Your task to perform on an android device: uninstall "Messages" Image 0: 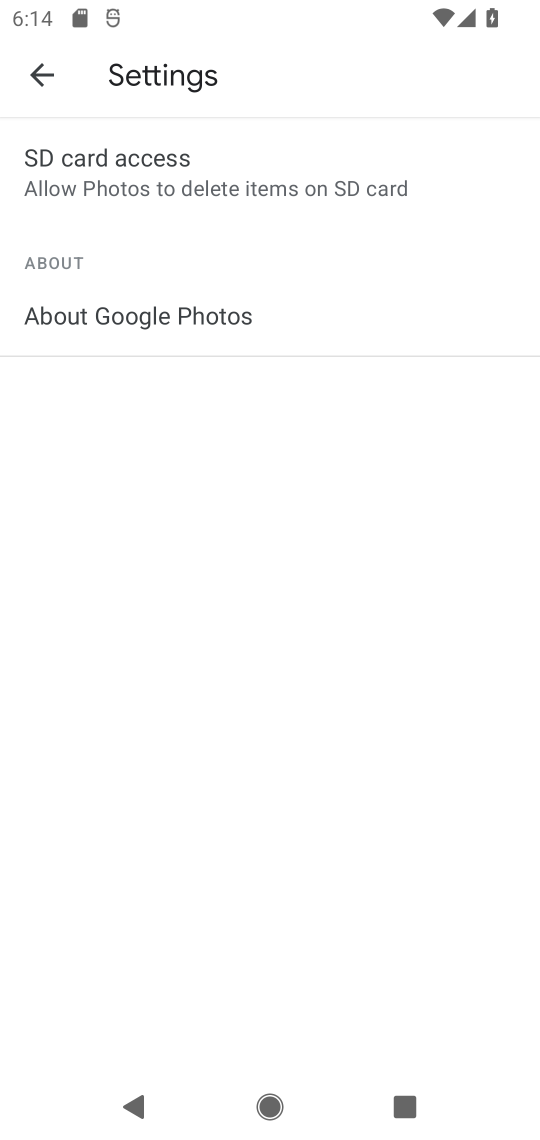
Step 0: press home button
Your task to perform on an android device: uninstall "Messages" Image 1: 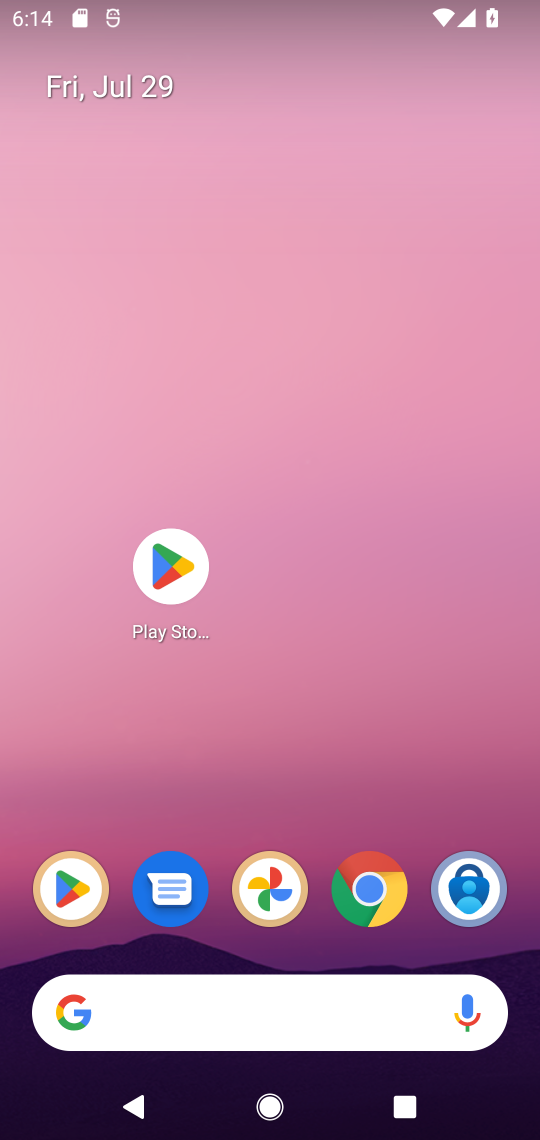
Step 1: click (176, 563)
Your task to perform on an android device: uninstall "Messages" Image 2: 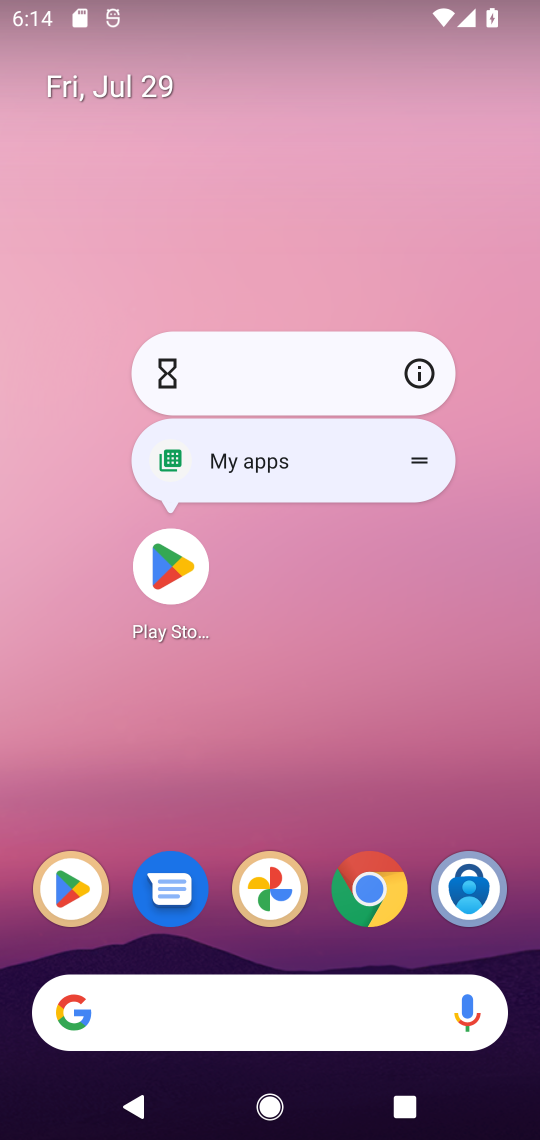
Step 2: click (171, 560)
Your task to perform on an android device: uninstall "Messages" Image 3: 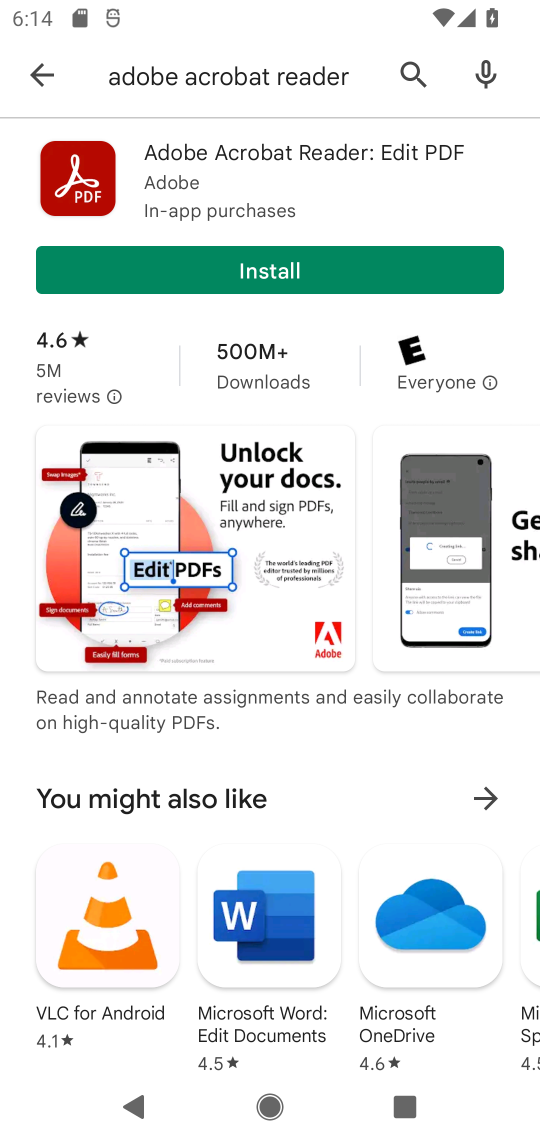
Step 3: click (410, 77)
Your task to perform on an android device: uninstall "Messages" Image 4: 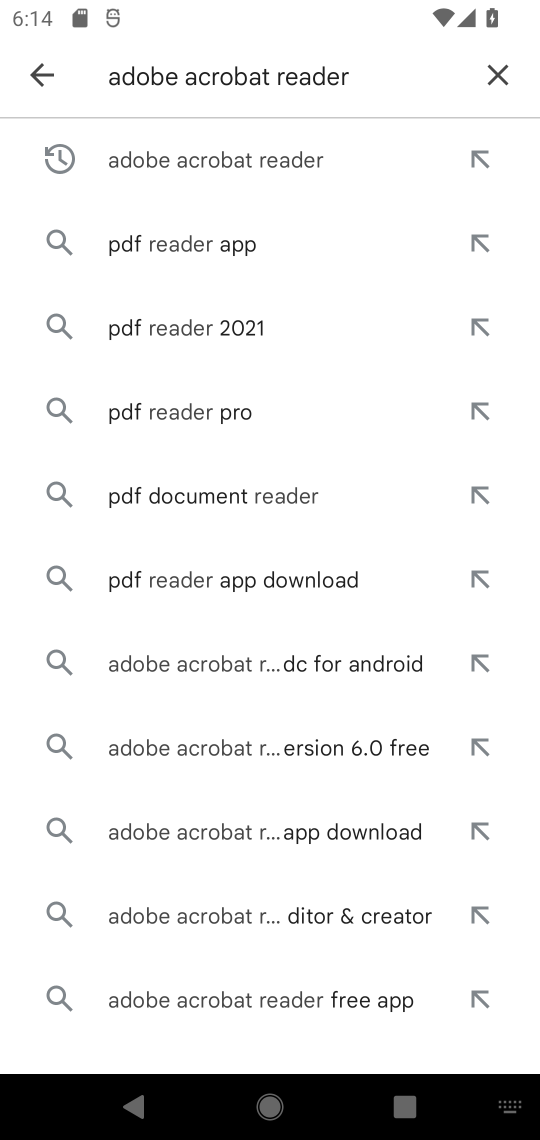
Step 4: click (497, 68)
Your task to perform on an android device: uninstall "Messages" Image 5: 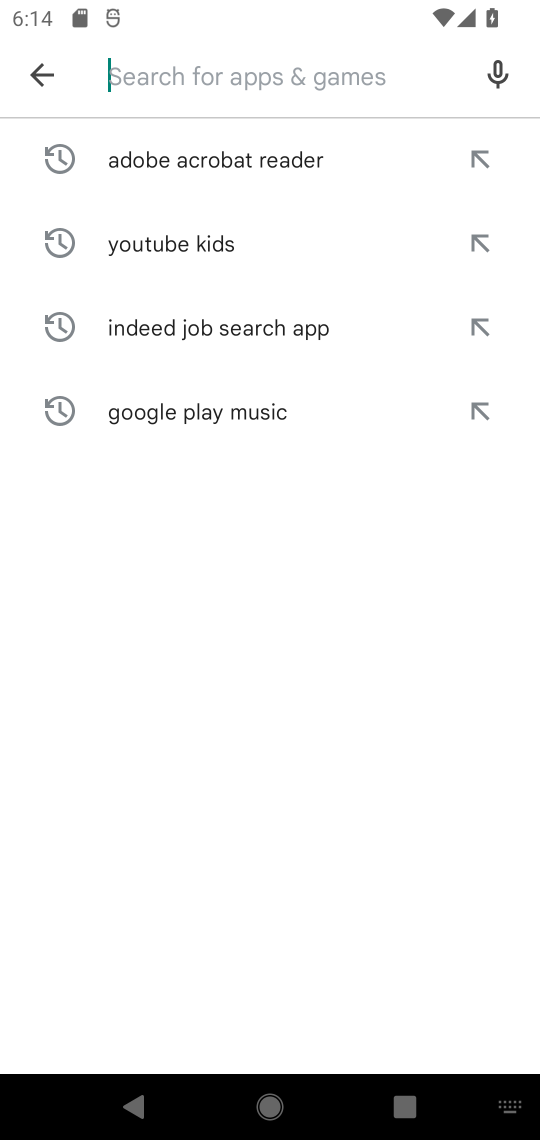
Step 5: type "Messages"
Your task to perform on an android device: uninstall "Messages" Image 6: 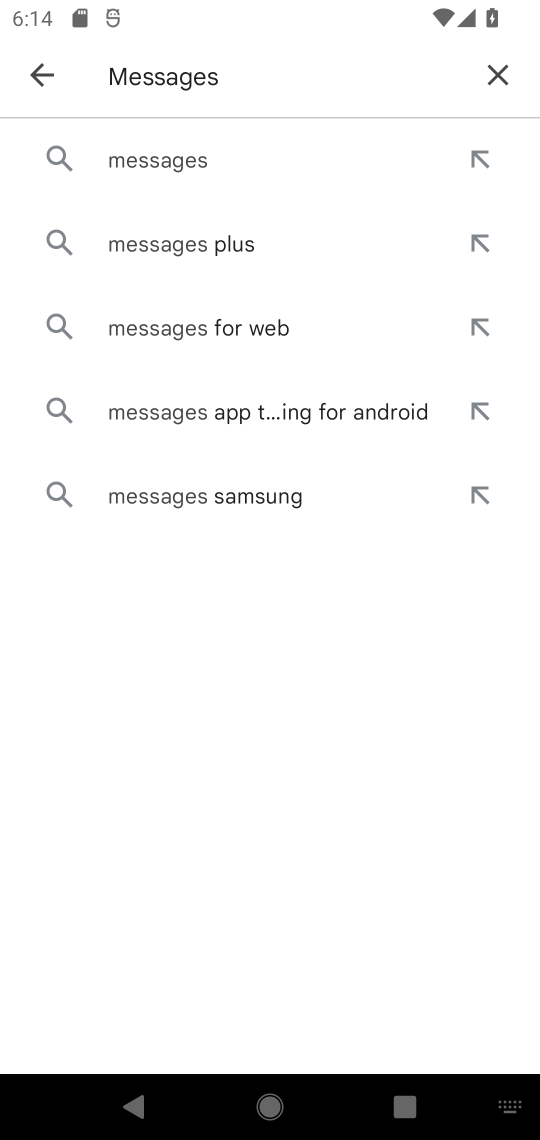
Step 6: click (201, 166)
Your task to perform on an android device: uninstall "Messages" Image 7: 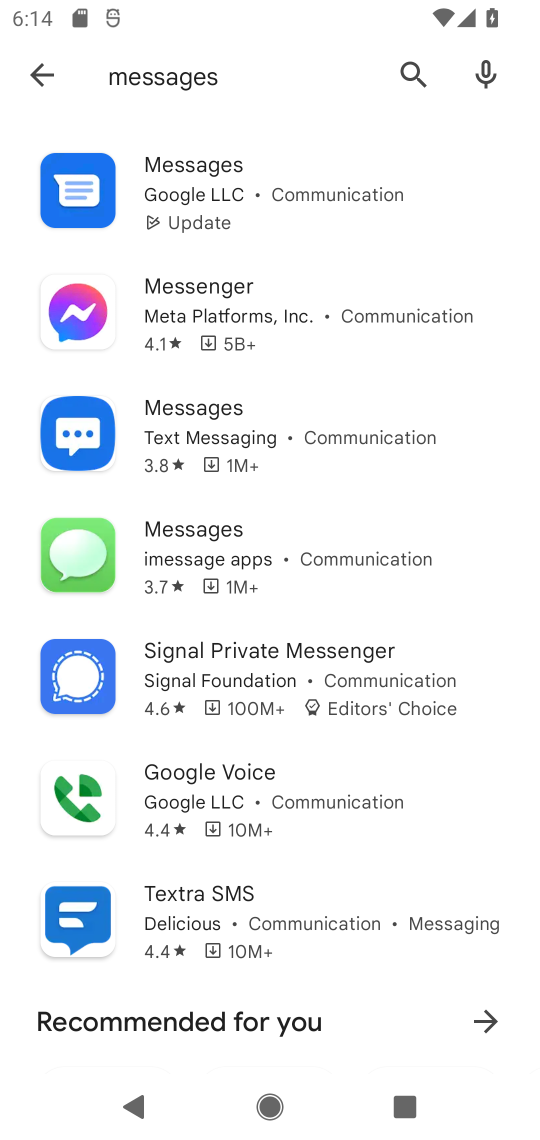
Step 7: click (194, 180)
Your task to perform on an android device: uninstall "Messages" Image 8: 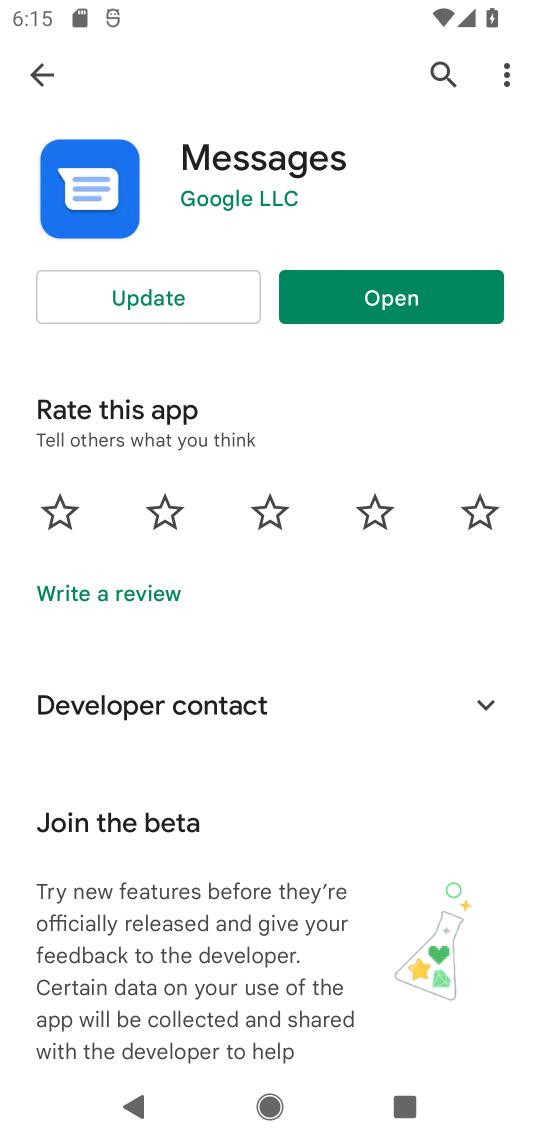
Step 8: task complete